Your task to perform on an android device: View the shopping cart on bestbuy.com. Image 0: 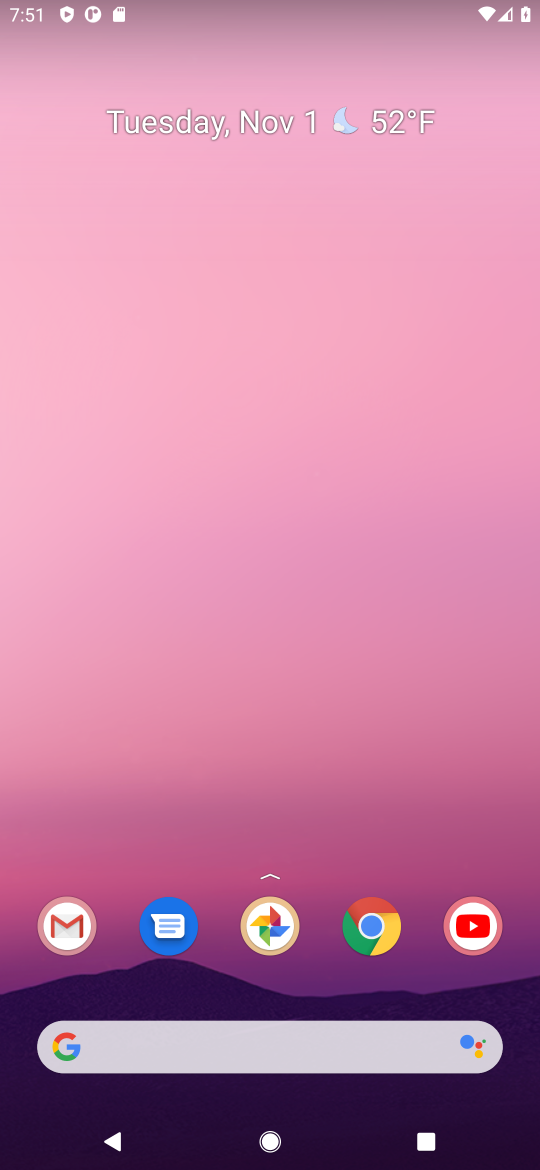
Step 0: click (353, 929)
Your task to perform on an android device: View the shopping cart on bestbuy.com. Image 1: 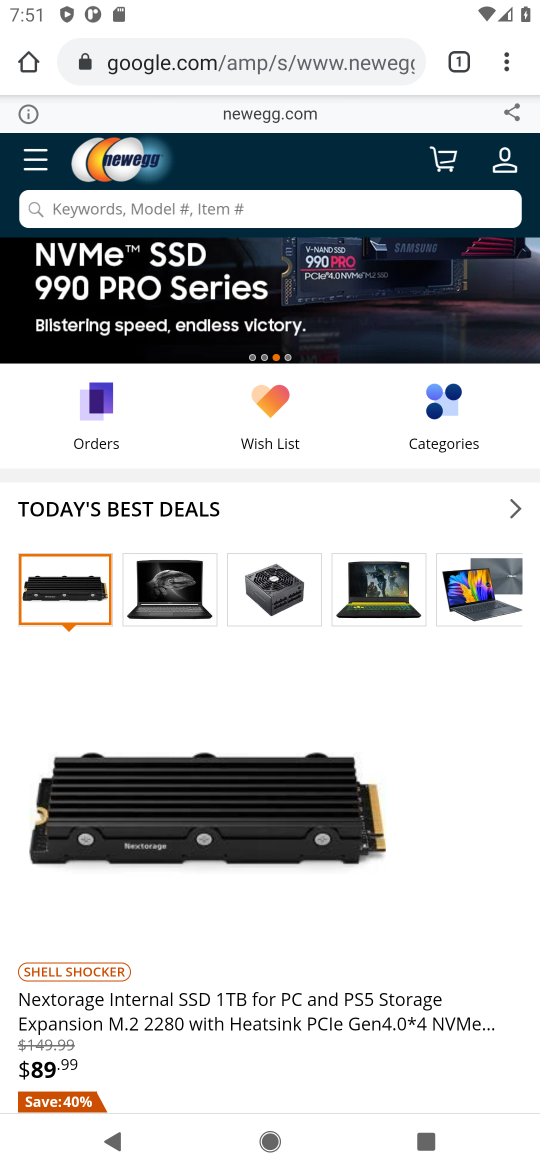
Step 1: click (116, 65)
Your task to perform on an android device: View the shopping cart on bestbuy.com. Image 2: 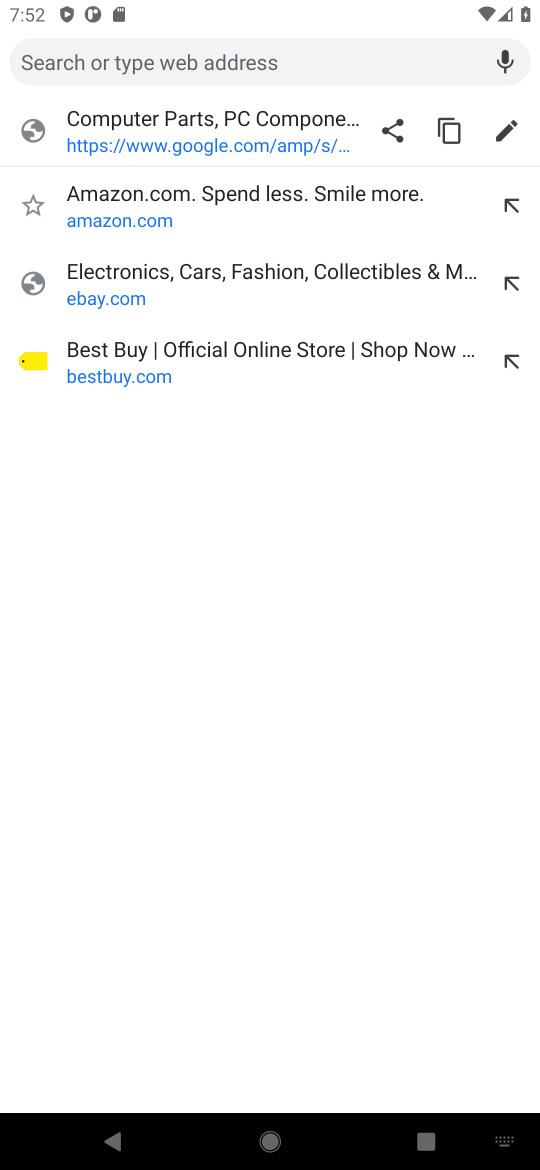
Step 2: click (123, 355)
Your task to perform on an android device: View the shopping cart on bestbuy.com. Image 3: 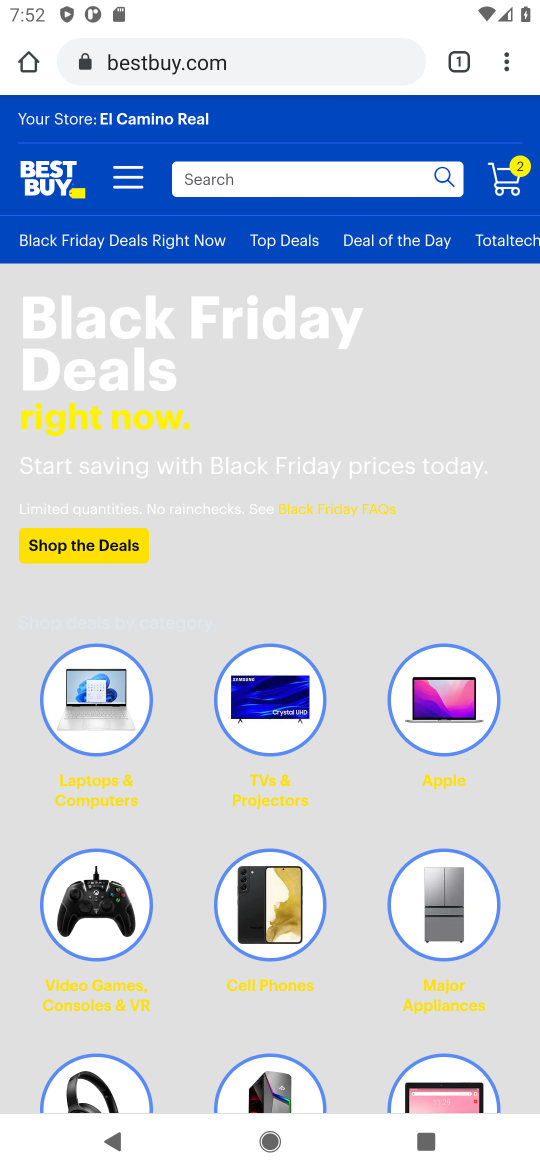
Step 3: click (484, 166)
Your task to perform on an android device: View the shopping cart on bestbuy.com. Image 4: 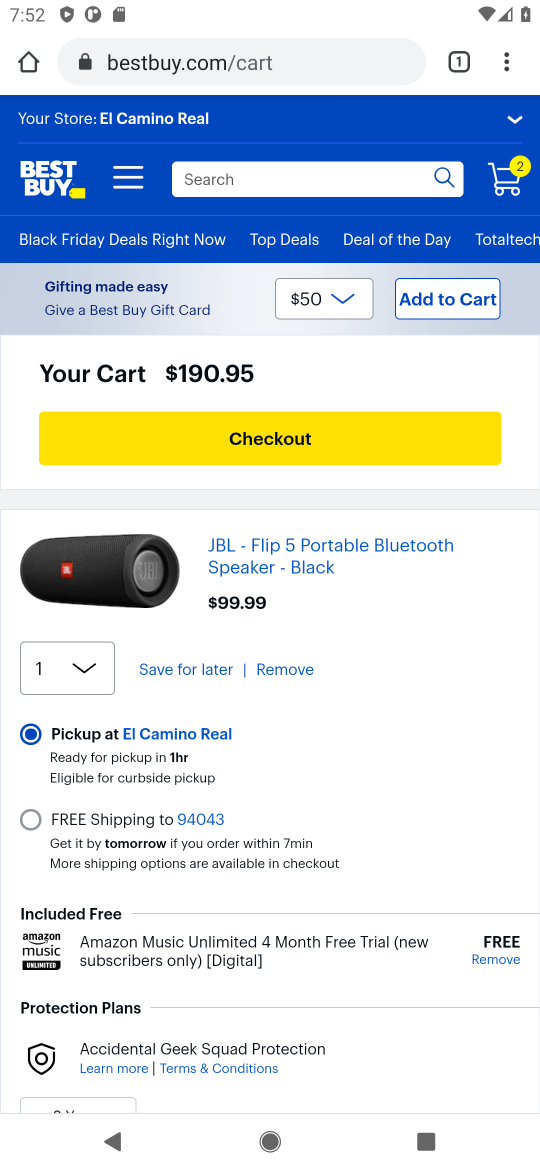
Step 4: task complete